Your task to perform on an android device: turn notification dots on Image 0: 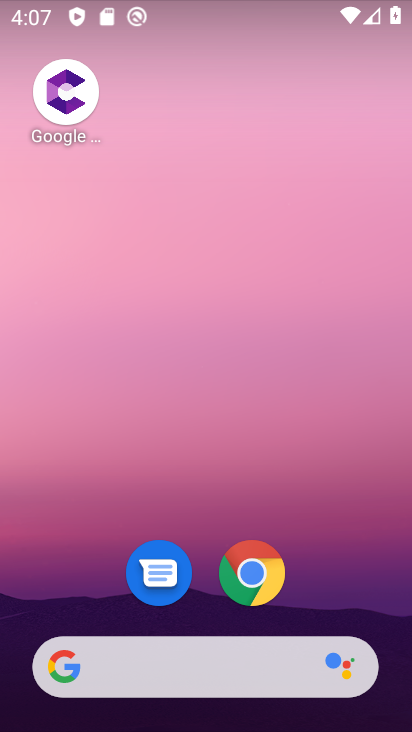
Step 0: drag from (216, 584) to (326, 19)
Your task to perform on an android device: turn notification dots on Image 1: 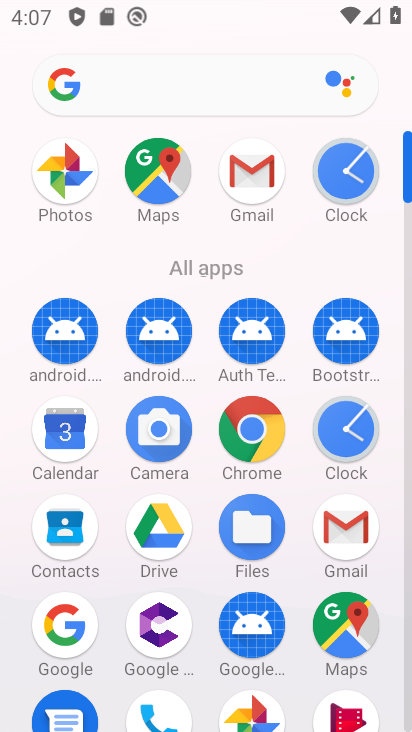
Step 1: drag from (271, 556) to (291, 216)
Your task to perform on an android device: turn notification dots on Image 2: 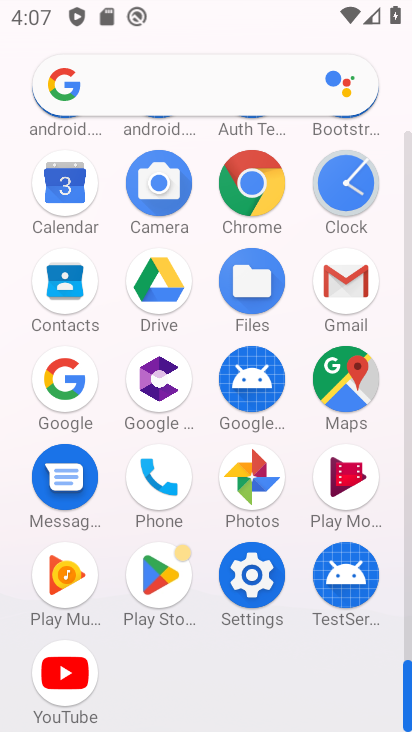
Step 2: click (242, 572)
Your task to perform on an android device: turn notification dots on Image 3: 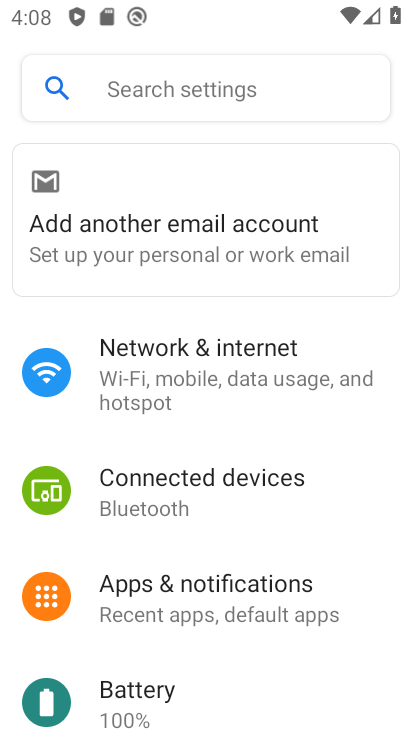
Step 3: click (209, 588)
Your task to perform on an android device: turn notification dots on Image 4: 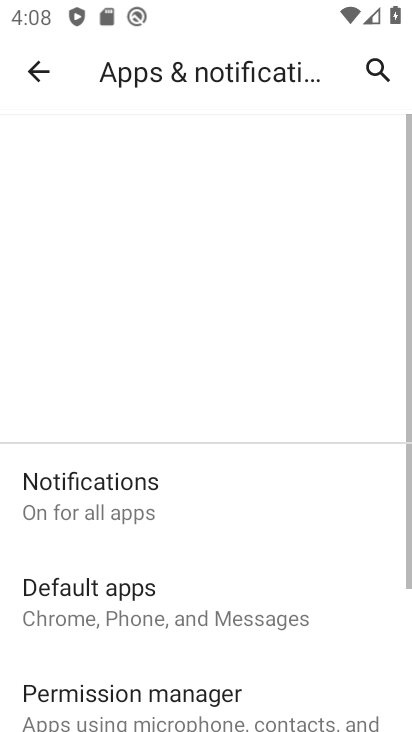
Step 4: drag from (156, 612) to (166, 351)
Your task to perform on an android device: turn notification dots on Image 5: 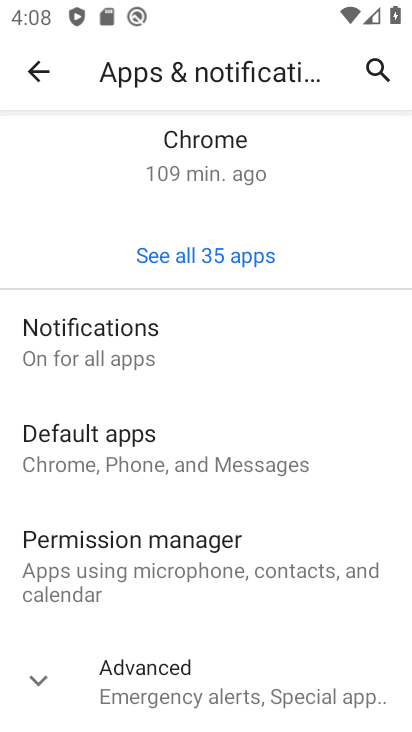
Step 5: click (128, 359)
Your task to perform on an android device: turn notification dots on Image 6: 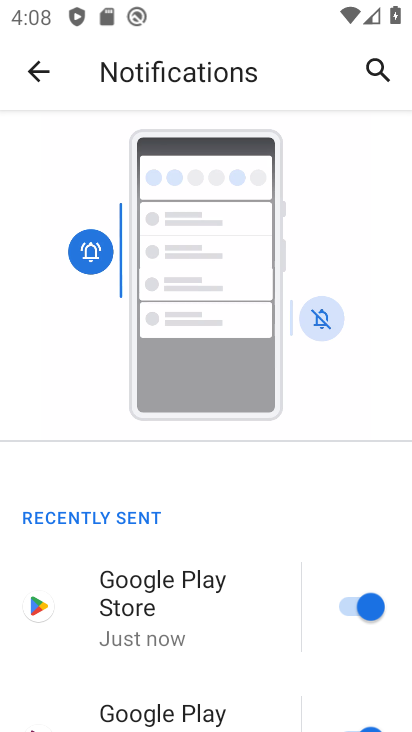
Step 6: drag from (202, 627) to (213, 215)
Your task to perform on an android device: turn notification dots on Image 7: 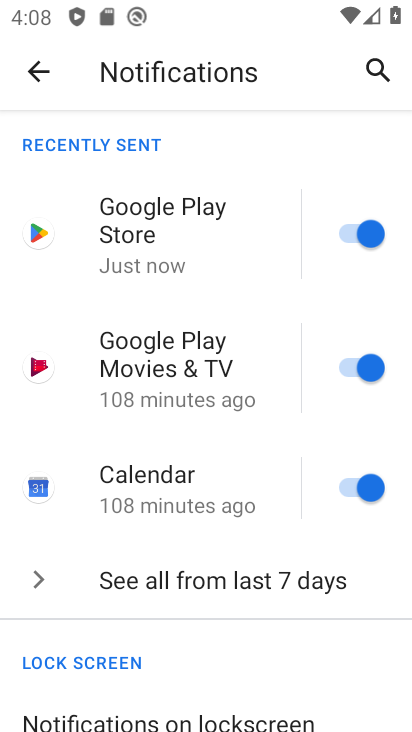
Step 7: drag from (210, 669) to (270, 125)
Your task to perform on an android device: turn notification dots on Image 8: 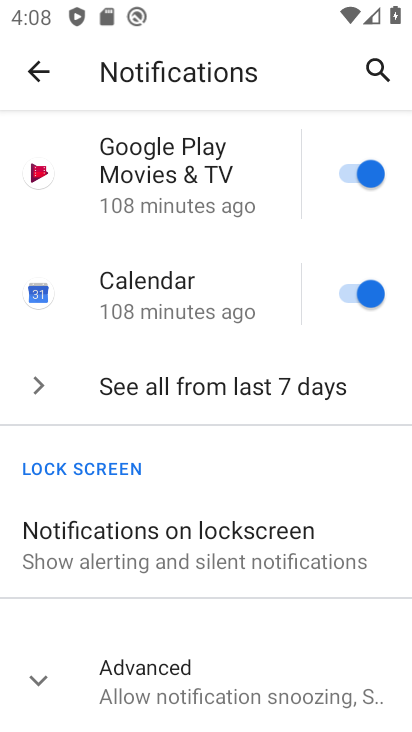
Step 8: click (172, 662)
Your task to perform on an android device: turn notification dots on Image 9: 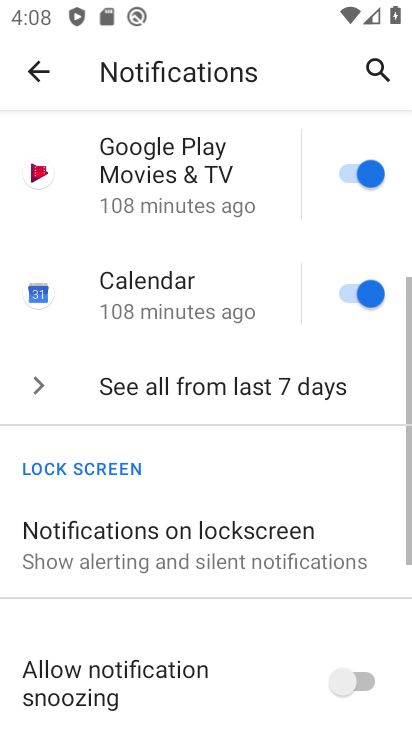
Step 9: task complete